Your task to perform on an android device: Open the phone app and click the voicemail tab. Image 0: 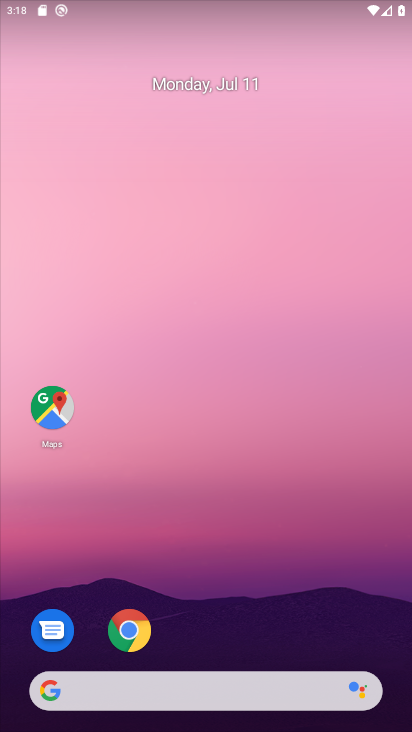
Step 0: drag from (271, 641) to (269, 272)
Your task to perform on an android device: Open the phone app and click the voicemail tab. Image 1: 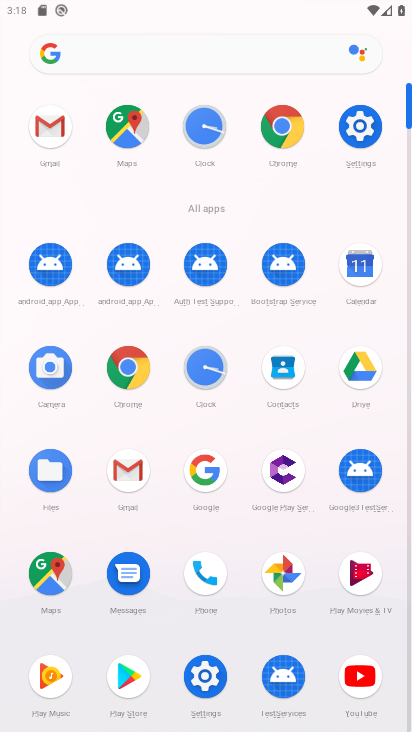
Step 1: click (201, 589)
Your task to perform on an android device: Open the phone app and click the voicemail tab. Image 2: 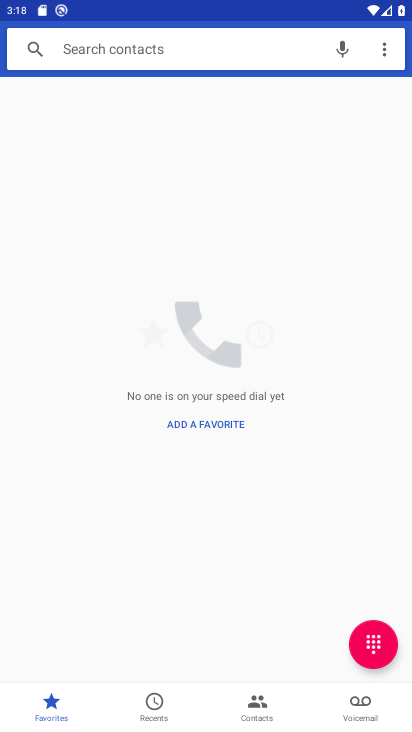
Step 2: click (359, 681)
Your task to perform on an android device: Open the phone app and click the voicemail tab. Image 3: 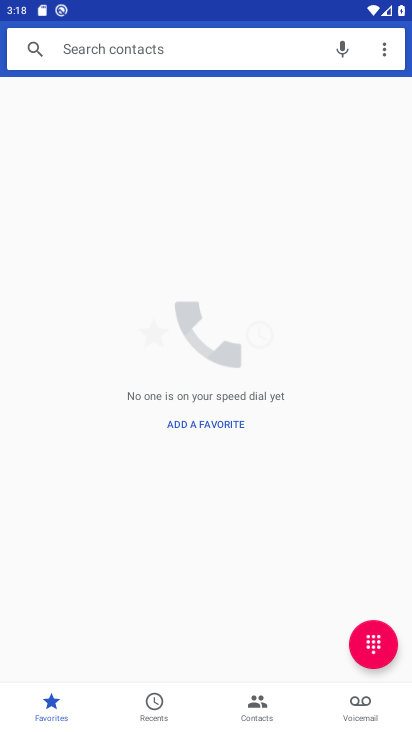
Step 3: click (360, 698)
Your task to perform on an android device: Open the phone app and click the voicemail tab. Image 4: 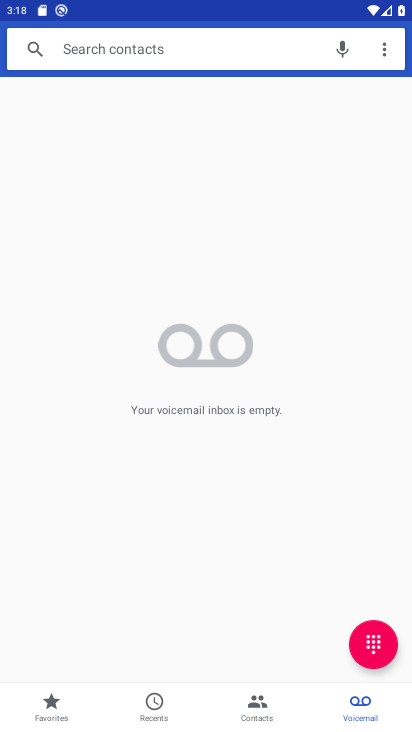
Step 4: task complete